Your task to perform on an android device: Open wifi settings Image 0: 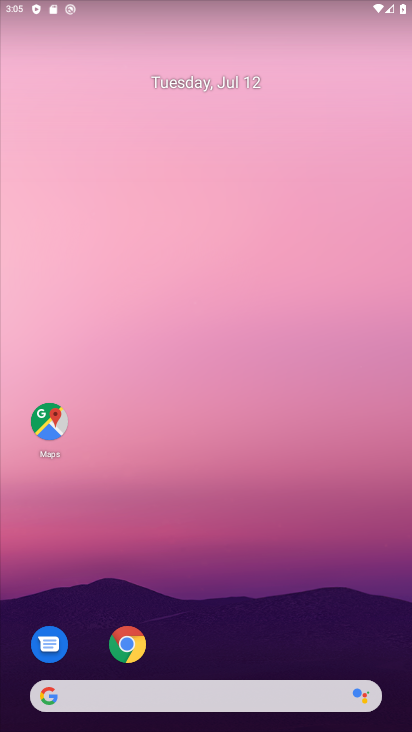
Step 0: drag from (220, 638) to (272, 113)
Your task to perform on an android device: Open wifi settings Image 1: 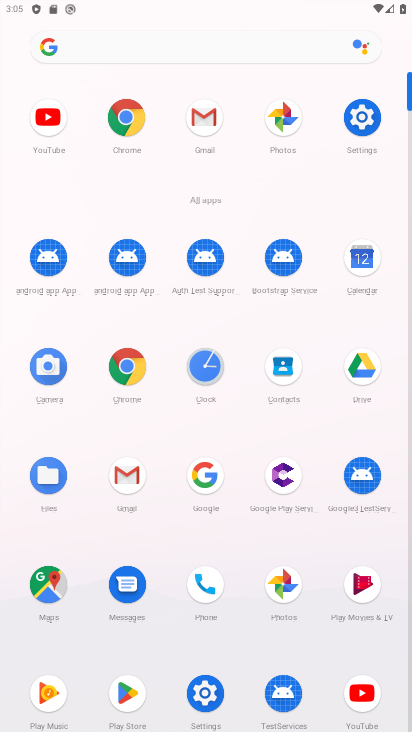
Step 1: click (367, 117)
Your task to perform on an android device: Open wifi settings Image 2: 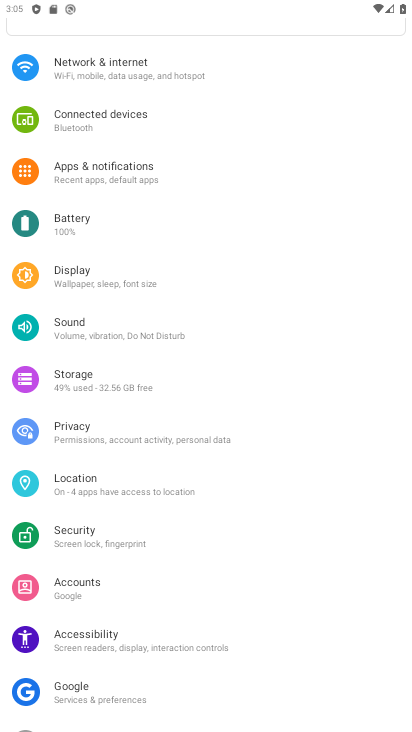
Step 2: click (130, 85)
Your task to perform on an android device: Open wifi settings Image 3: 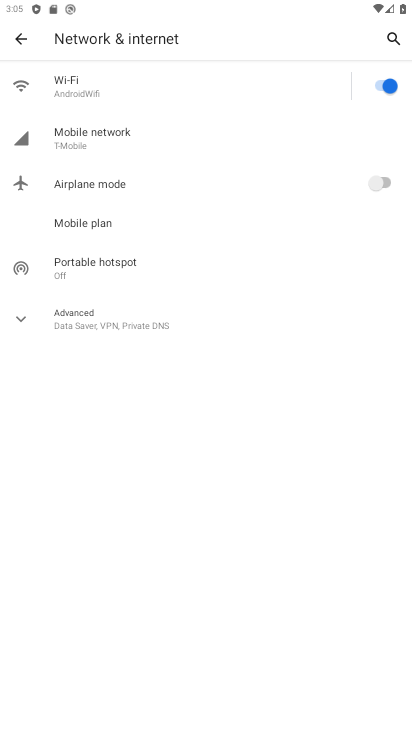
Step 3: click (130, 85)
Your task to perform on an android device: Open wifi settings Image 4: 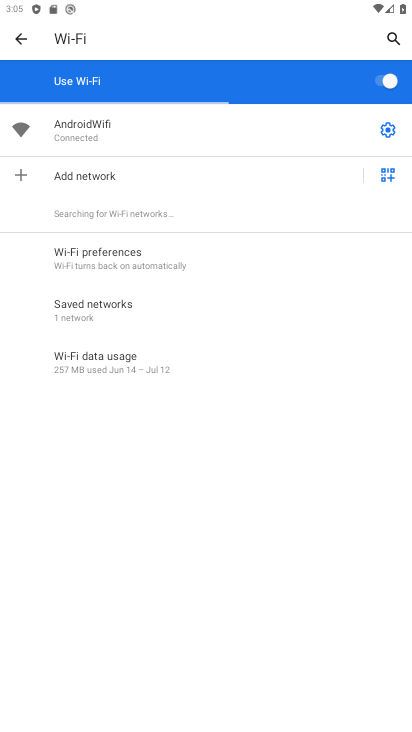
Step 4: click (395, 128)
Your task to perform on an android device: Open wifi settings Image 5: 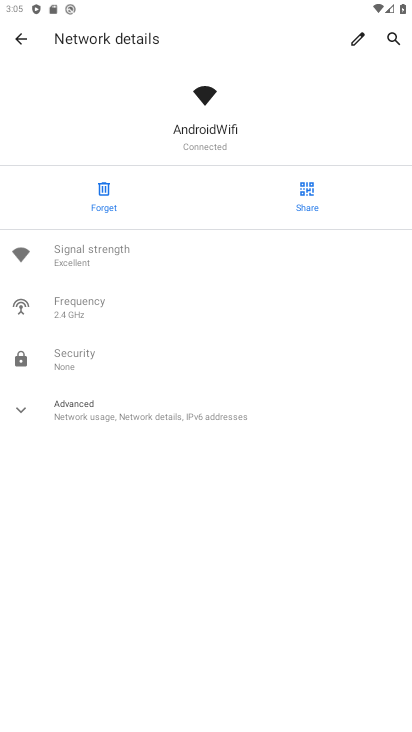
Step 5: task complete